Your task to perform on an android device: Open calendar and show me the fourth week of next month Image 0: 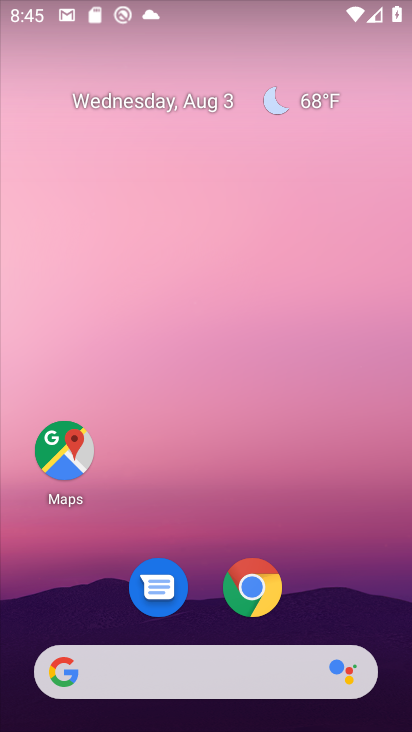
Step 0: drag from (216, 535) to (264, 120)
Your task to perform on an android device: Open calendar and show me the fourth week of next month Image 1: 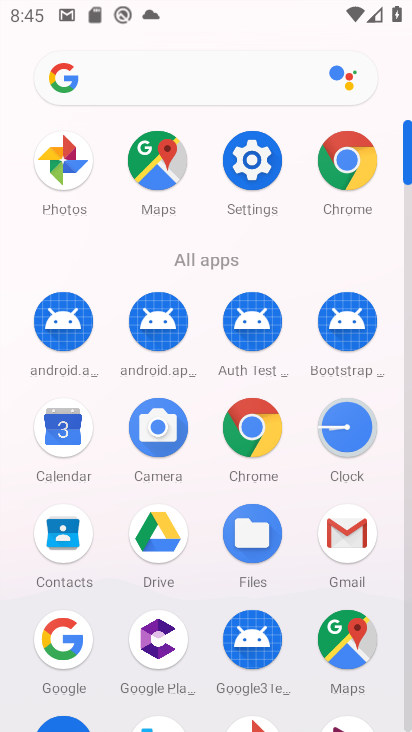
Step 1: click (60, 430)
Your task to perform on an android device: Open calendar and show me the fourth week of next month Image 2: 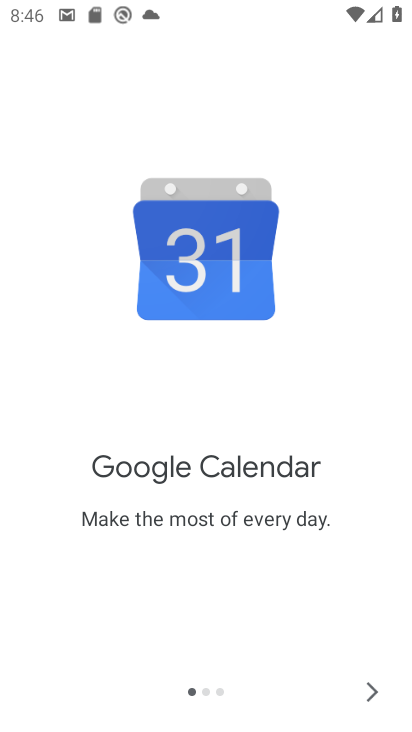
Step 2: click (372, 691)
Your task to perform on an android device: Open calendar and show me the fourth week of next month Image 3: 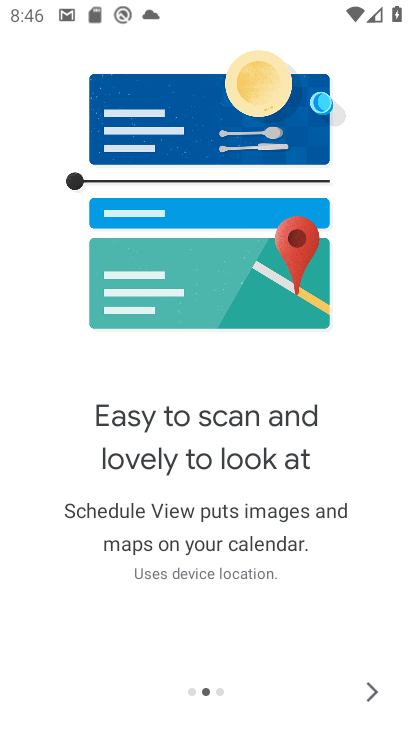
Step 3: click (372, 691)
Your task to perform on an android device: Open calendar and show me the fourth week of next month Image 4: 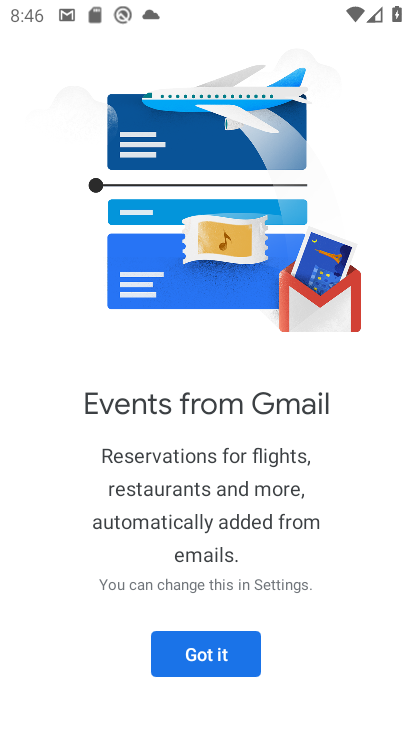
Step 4: click (179, 653)
Your task to perform on an android device: Open calendar and show me the fourth week of next month Image 5: 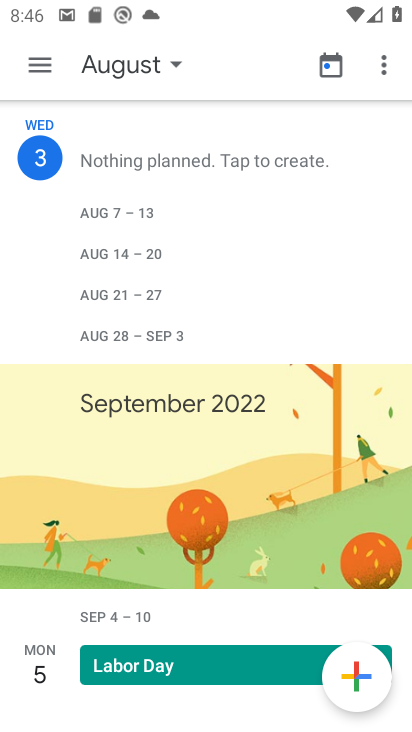
Step 5: click (382, 62)
Your task to perform on an android device: Open calendar and show me the fourth week of next month Image 6: 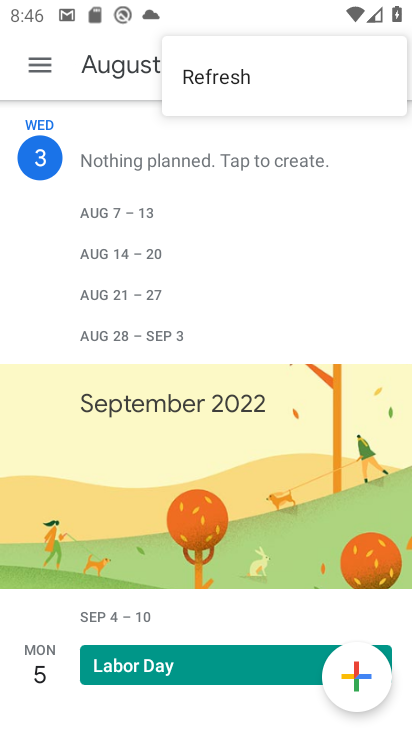
Step 6: press home button
Your task to perform on an android device: Open calendar and show me the fourth week of next month Image 7: 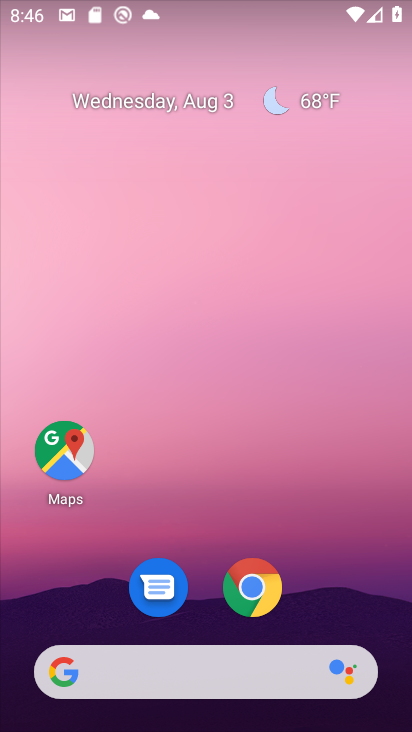
Step 7: drag from (223, 513) to (233, 25)
Your task to perform on an android device: Open calendar and show me the fourth week of next month Image 8: 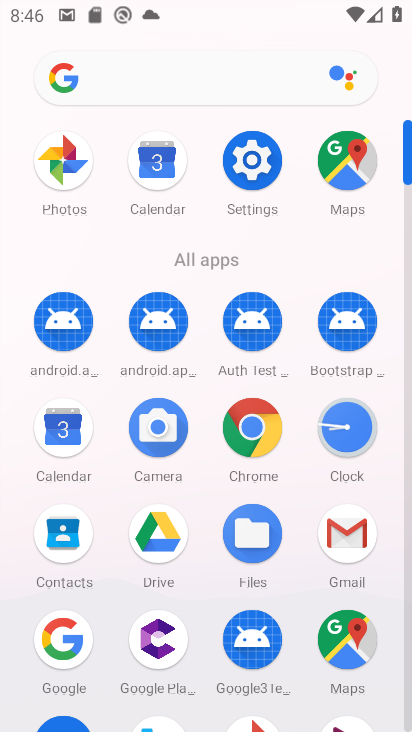
Step 8: click (156, 137)
Your task to perform on an android device: Open calendar and show me the fourth week of next month Image 9: 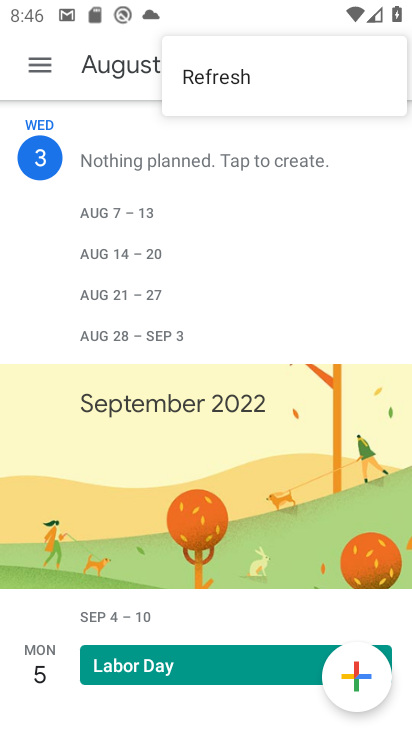
Step 9: click (395, 142)
Your task to perform on an android device: Open calendar and show me the fourth week of next month Image 10: 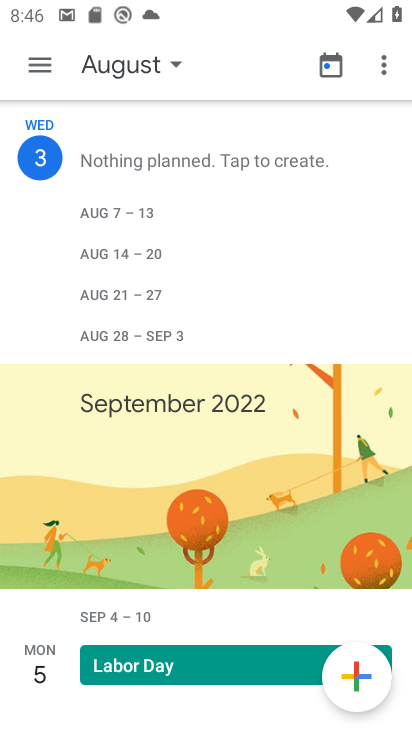
Step 10: click (162, 68)
Your task to perform on an android device: Open calendar and show me the fourth week of next month Image 11: 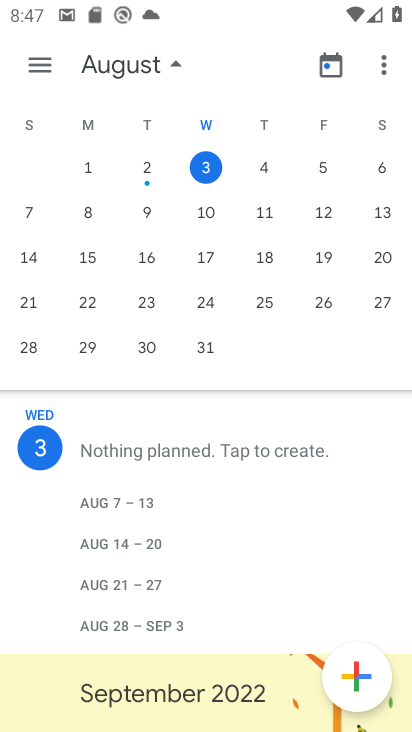
Step 11: drag from (315, 240) to (16, 172)
Your task to perform on an android device: Open calendar and show me the fourth week of next month Image 12: 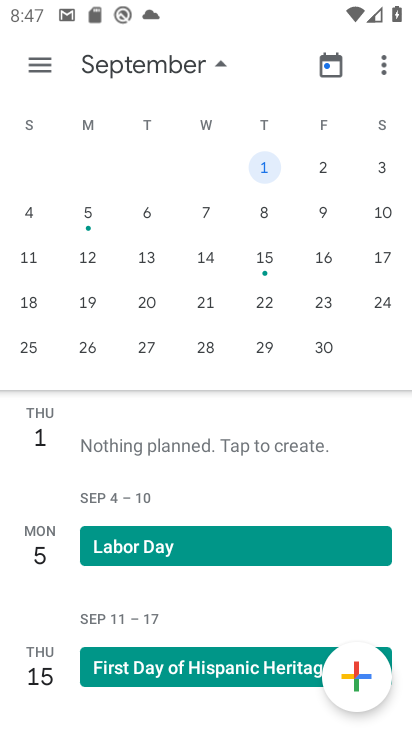
Step 12: click (146, 343)
Your task to perform on an android device: Open calendar and show me the fourth week of next month Image 13: 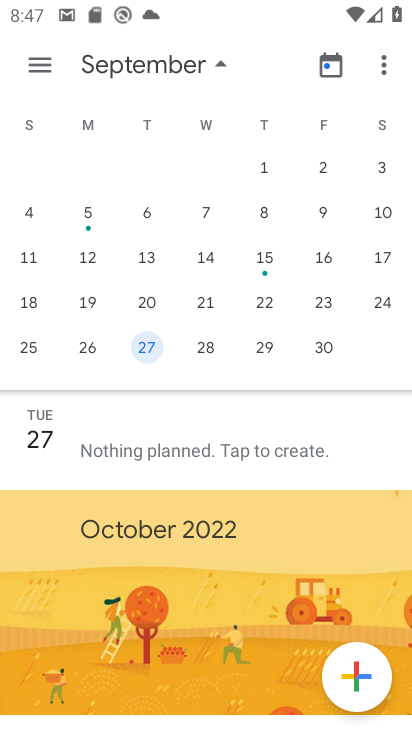
Step 13: task complete